Your task to perform on an android device: Go to Yahoo.com Image 0: 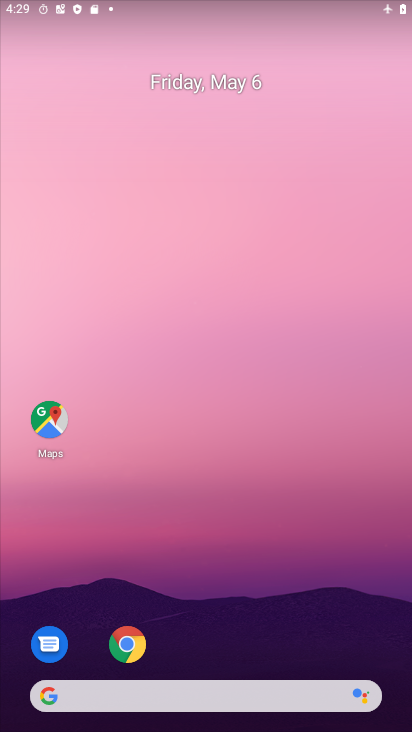
Step 0: drag from (314, 659) to (133, 202)
Your task to perform on an android device: Go to Yahoo.com Image 1: 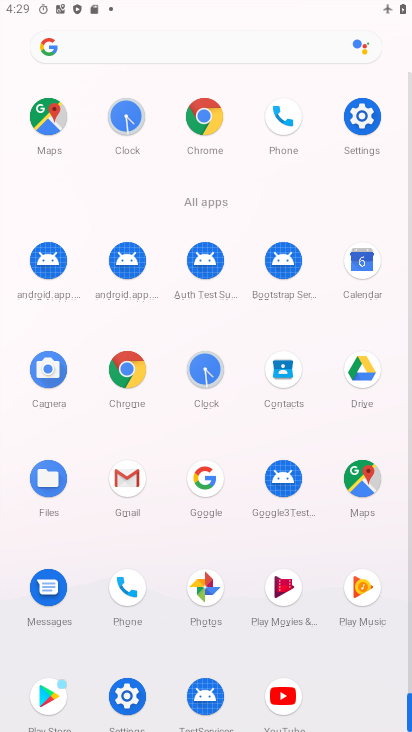
Step 1: click (197, 106)
Your task to perform on an android device: Go to Yahoo.com Image 2: 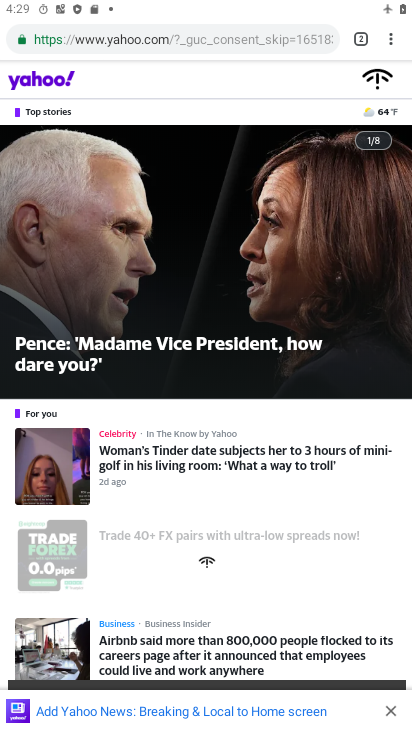
Step 2: task complete